Your task to perform on an android device: add a label to a message in the gmail app Image 0: 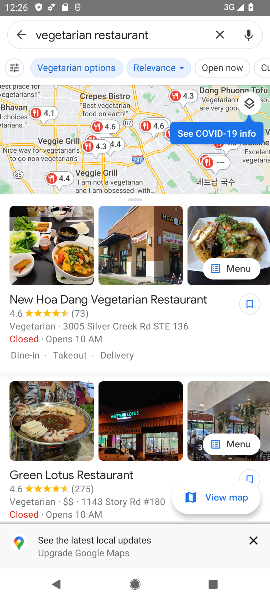
Step 0: press home button
Your task to perform on an android device: add a label to a message in the gmail app Image 1: 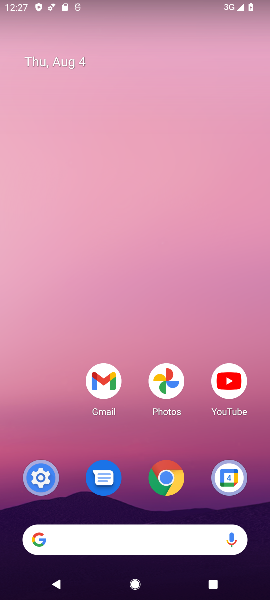
Step 1: drag from (192, 433) to (191, 137)
Your task to perform on an android device: add a label to a message in the gmail app Image 2: 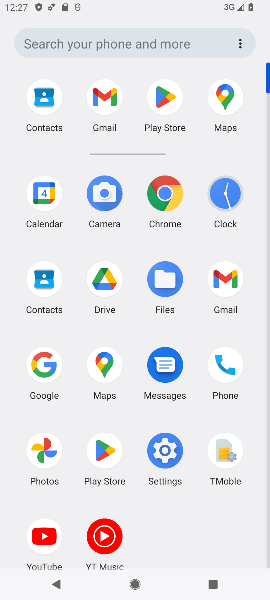
Step 2: click (226, 271)
Your task to perform on an android device: add a label to a message in the gmail app Image 3: 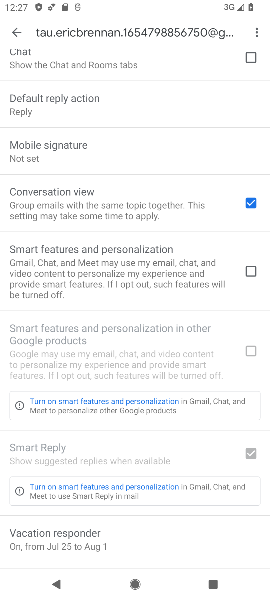
Step 3: click (17, 30)
Your task to perform on an android device: add a label to a message in the gmail app Image 4: 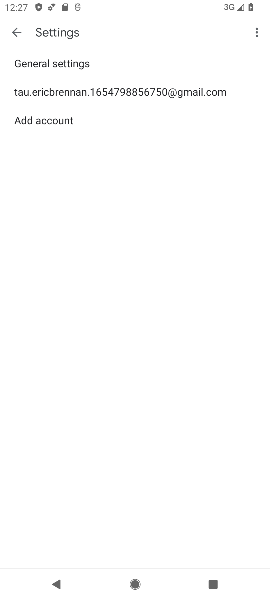
Step 4: click (15, 30)
Your task to perform on an android device: add a label to a message in the gmail app Image 5: 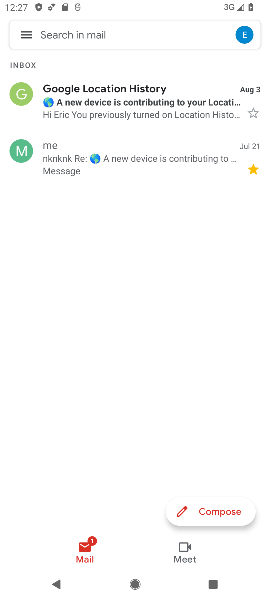
Step 5: click (12, 91)
Your task to perform on an android device: add a label to a message in the gmail app Image 6: 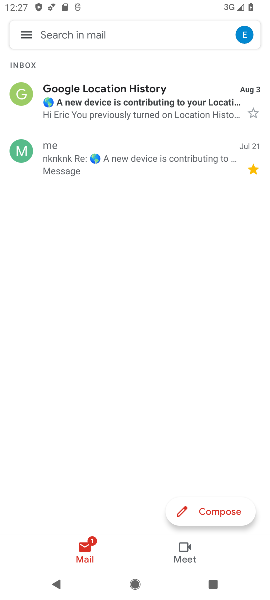
Step 6: click (25, 91)
Your task to perform on an android device: add a label to a message in the gmail app Image 7: 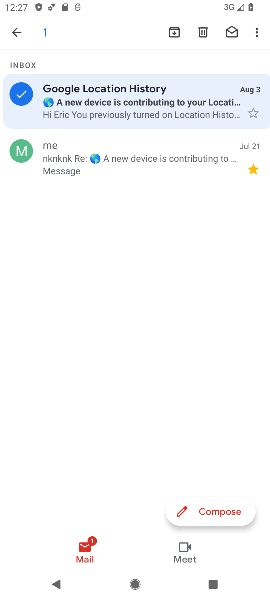
Step 7: click (260, 26)
Your task to perform on an android device: add a label to a message in the gmail app Image 8: 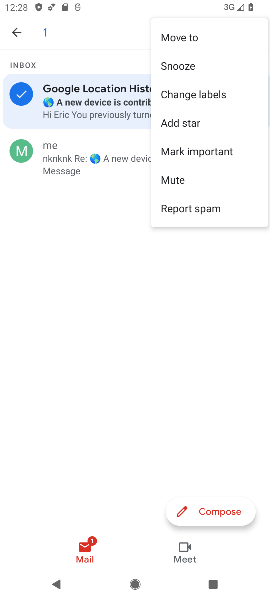
Step 8: click (94, 227)
Your task to perform on an android device: add a label to a message in the gmail app Image 9: 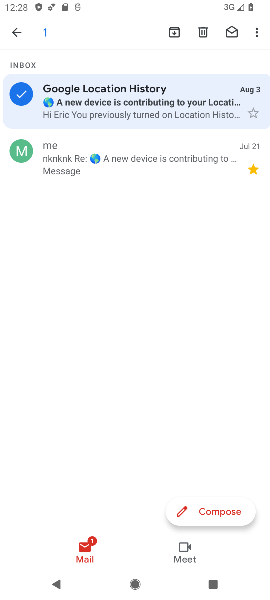
Step 9: task complete